Your task to perform on an android device: Open Google Chrome and open the bookmarks view Image 0: 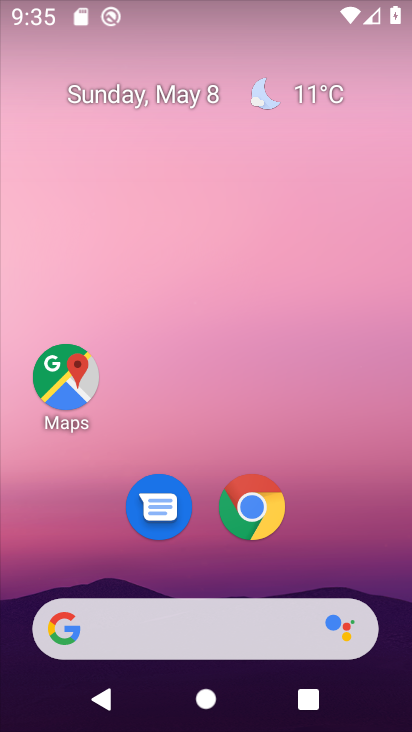
Step 0: click (218, 502)
Your task to perform on an android device: Open Google Chrome and open the bookmarks view Image 1: 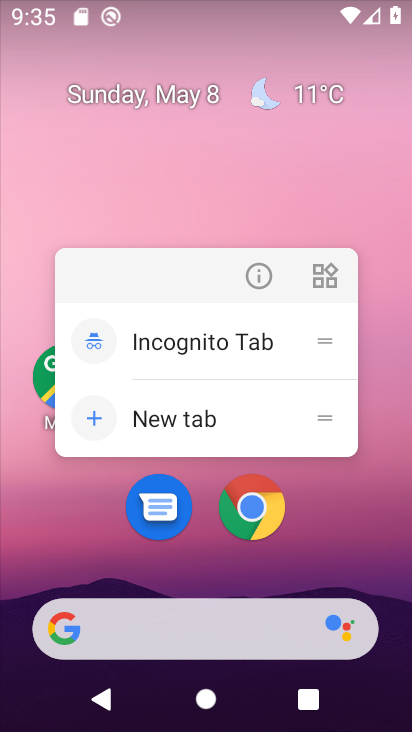
Step 1: click (249, 501)
Your task to perform on an android device: Open Google Chrome and open the bookmarks view Image 2: 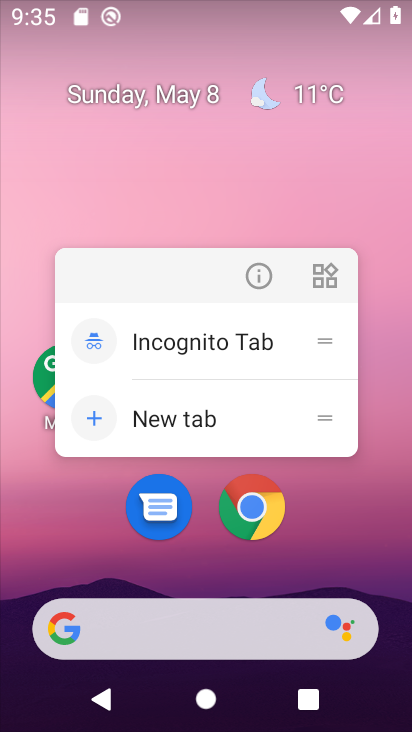
Step 2: click (255, 509)
Your task to perform on an android device: Open Google Chrome and open the bookmarks view Image 3: 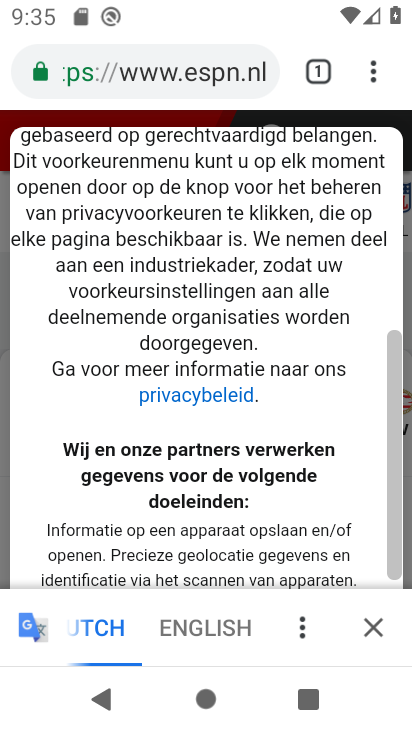
Step 3: task complete